Your task to perform on an android device: add a contact in the contacts app Image 0: 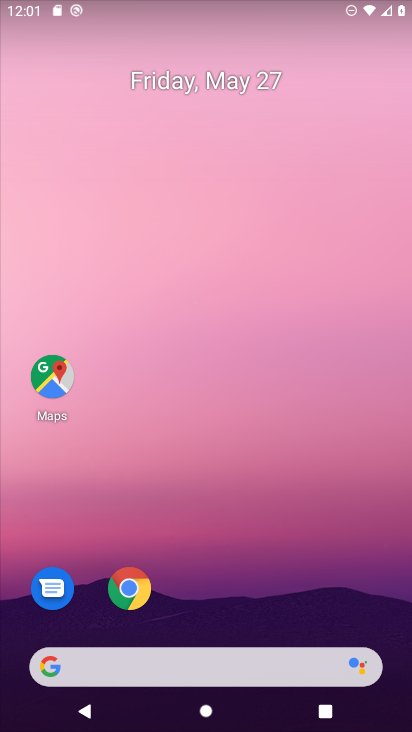
Step 0: drag from (377, 630) to (371, 75)
Your task to perform on an android device: add a contact in the contacts app Image 1: 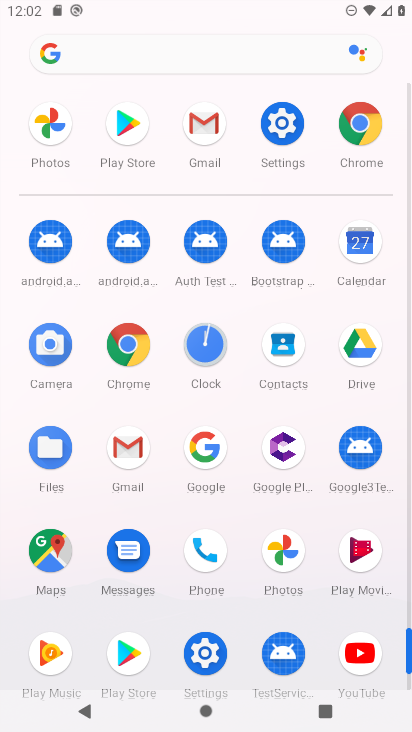
Step 1: click (280, 344)
Your task to perform on an android device: add a contact in the contacts app Image 2: 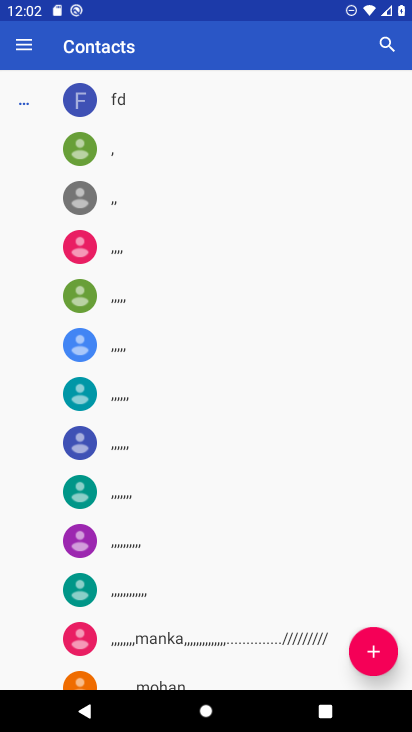
Step 2: click (371, 652)
Your task to perform on an android device: add a contact in the contacts app Image 3: 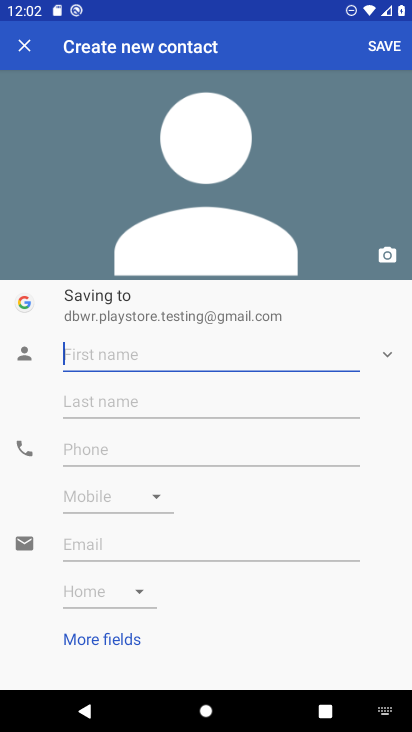
Step 3: type "iioiuytrghjh"
Your task to perform on an android device: add a contact in the contacts app Image 4: 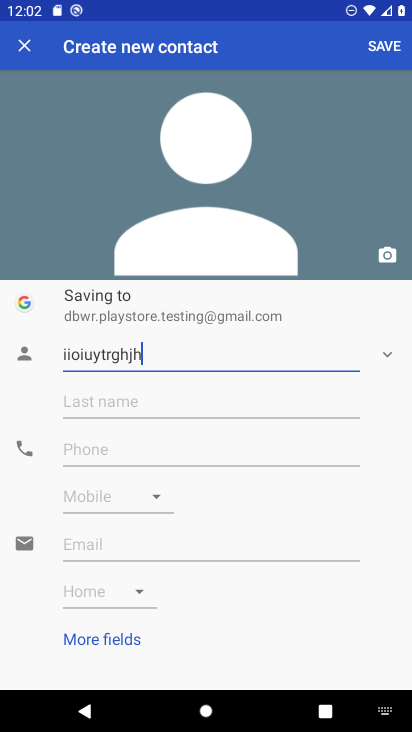
Step 4: click (145, 448)
Your task to perform on an android device: add a contact in the contacts app Image 5: 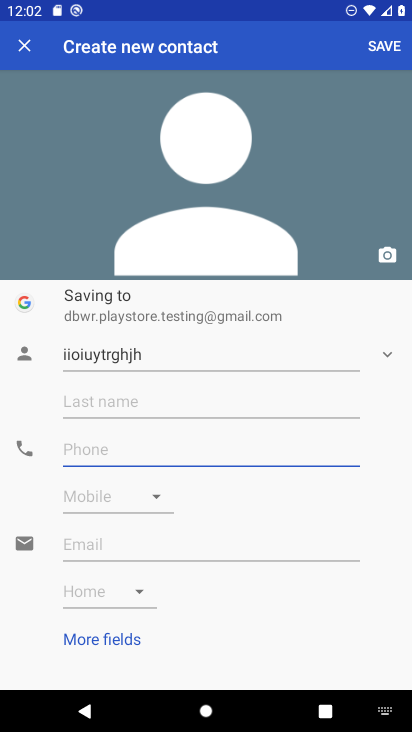
Step 5: type "0879787544"
Your task to perform on an android device: add a contact in the contacts app Image 6: 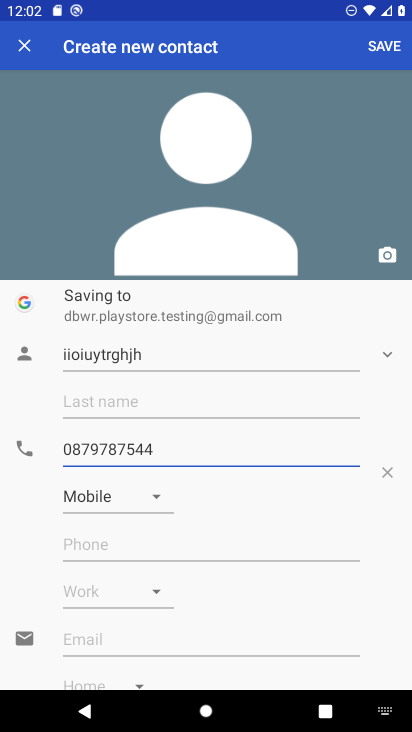
Step 6: click (154, 494)
Your task to perform on an android device: add a contact in the contacts app Image 7: 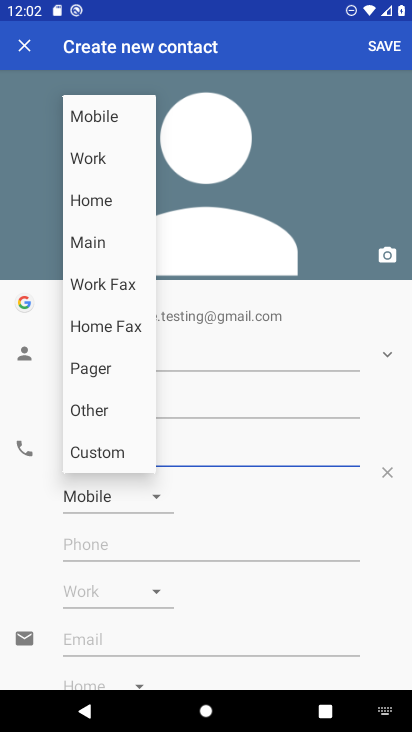
Step 7: click (93, 200)
Your task to perform on an android device: add a contact in the contacts app Image 8: 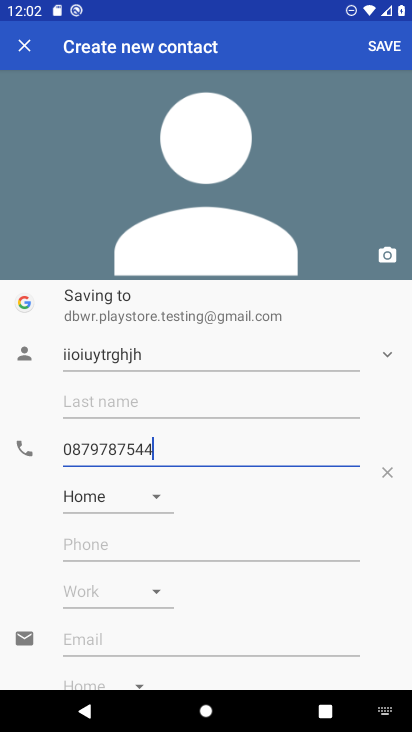
Step 8: click (383, 45)
Your task to perform on an android device: add a contact in the contacts app Image 9: 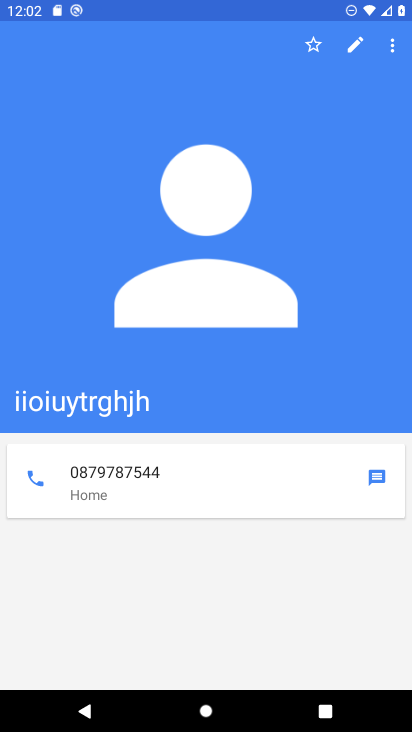
Step 9: task complete